Your task to perform on an android device: What's the weather today? Image 0: 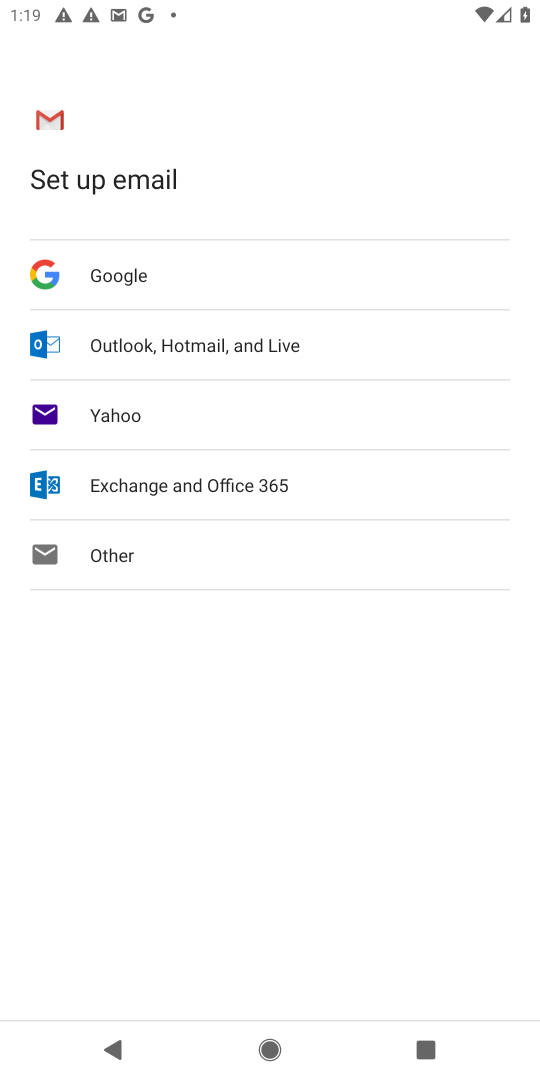
Step 0: press home button
Your task to perform on an android device: What's the weather today? Image 1: 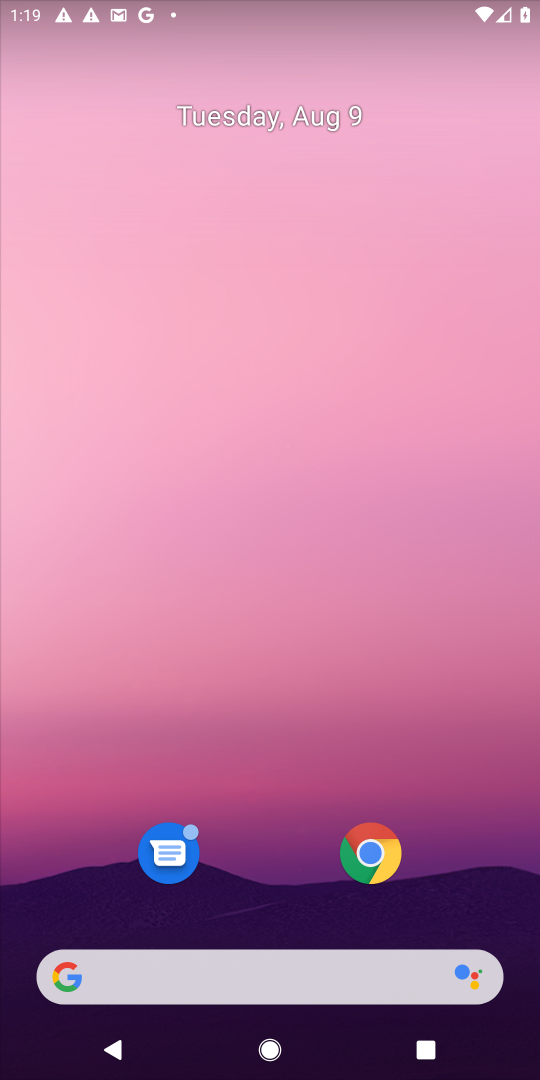
Step 1: drag from (268, 922) to (205, 51)
Your task to perform on an android device: What's the weather today? Image 2: 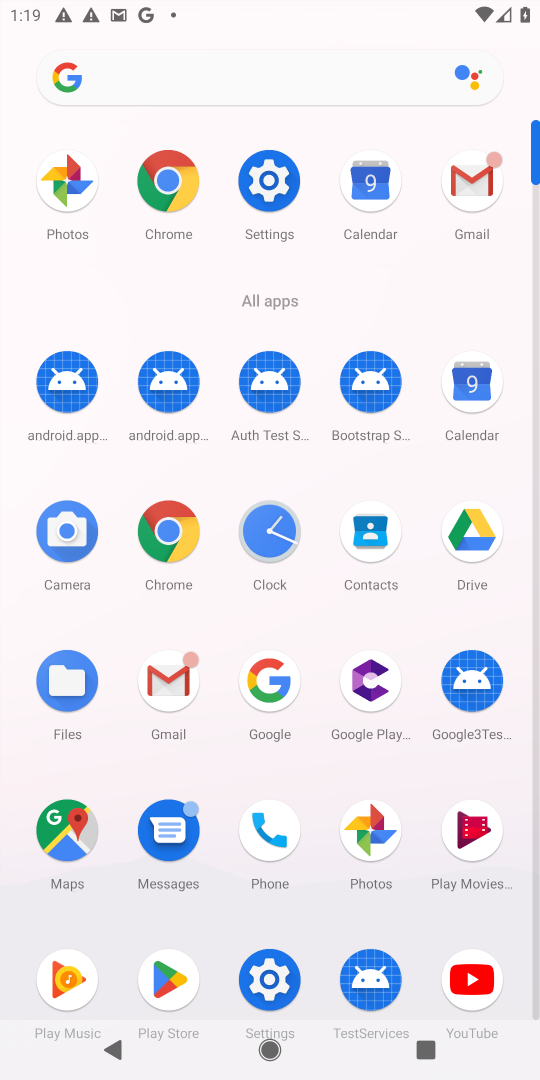
Step 2: press home button
Your task to perform on an android device: What's the weather today? Image 3: 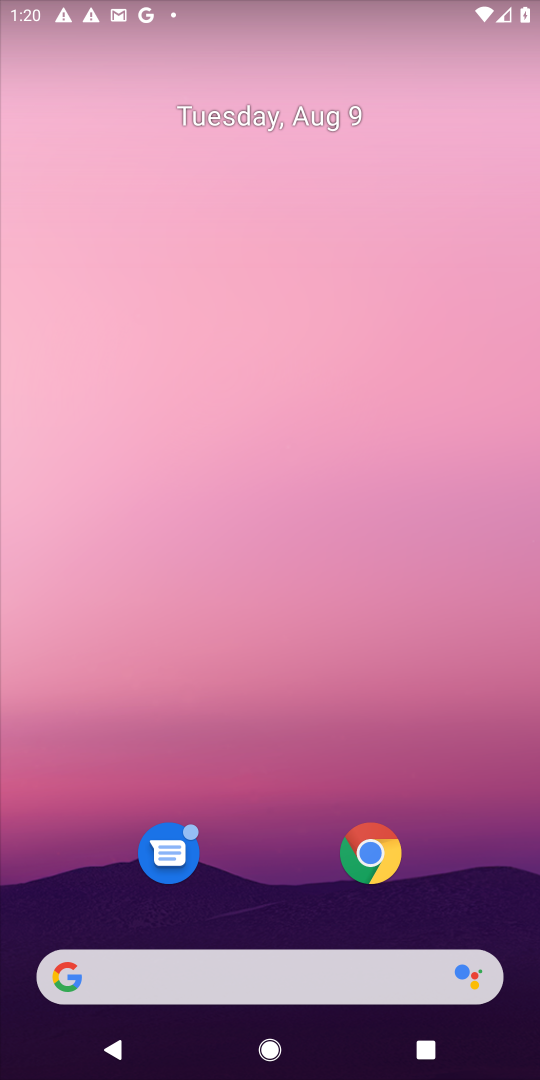
Step 3: drag from (38, 598) to (538, 602)
Your task to perform on an android device: What's the weather today? Image 4: 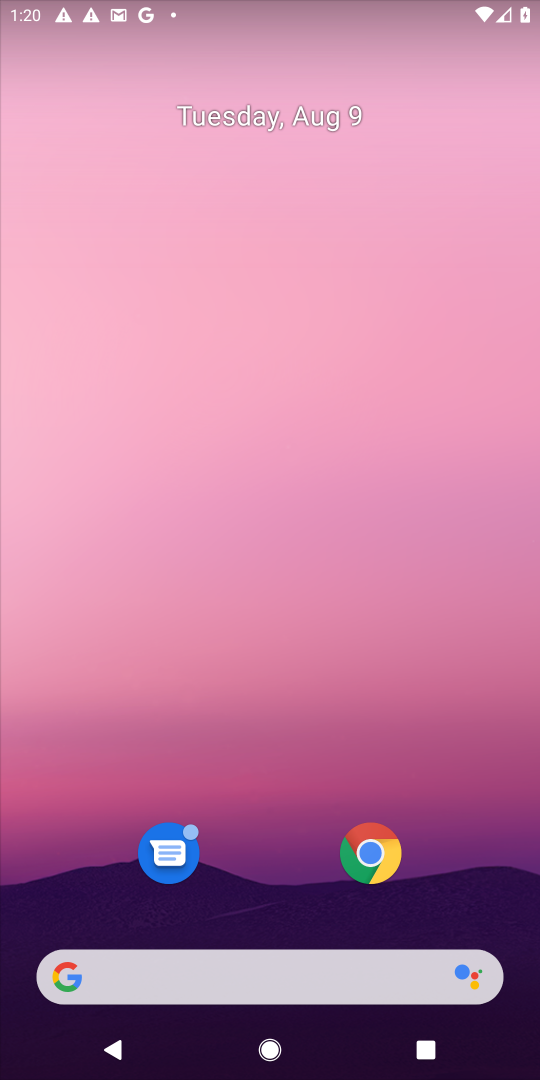
Step 4: drag from (300, 880) to (201, 38)
Your task to perform on an android device: What's the weather today? Image 5: 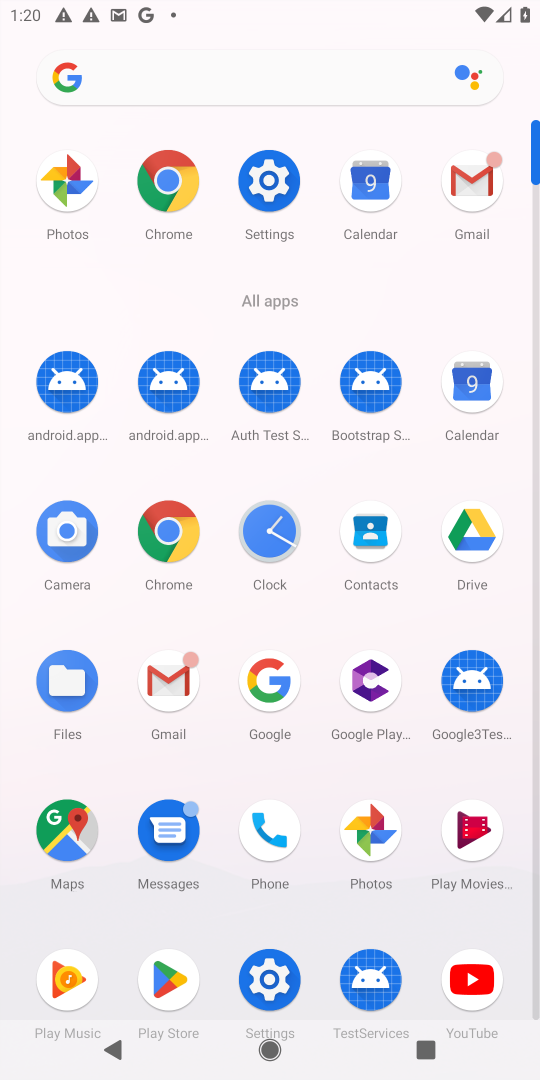
Step 5: click (133, 74)
Your task to perform on an android device: What's the weather today? Image 6: 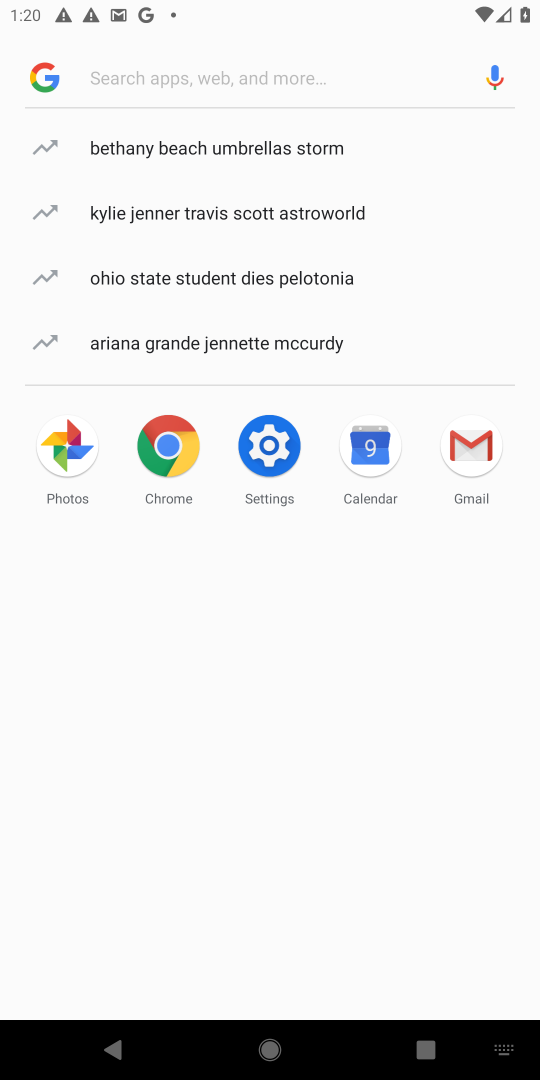
Step 6: type "weather"
Your task to perform on an android device: What's the weather today? Image 7: 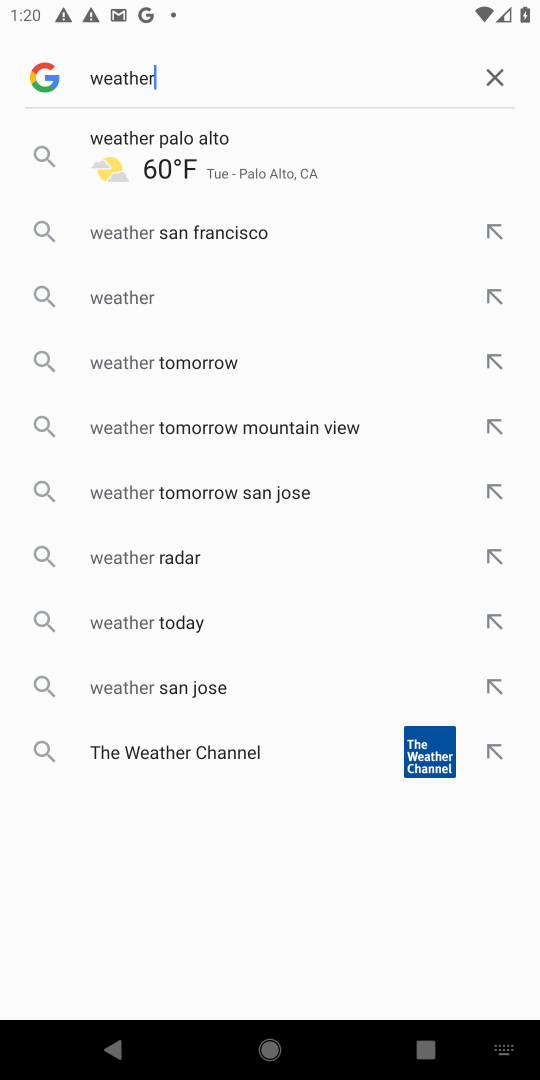
Step 7: click (118, 155)
Your task to perform on an android device: What's the weather today? Image 8: 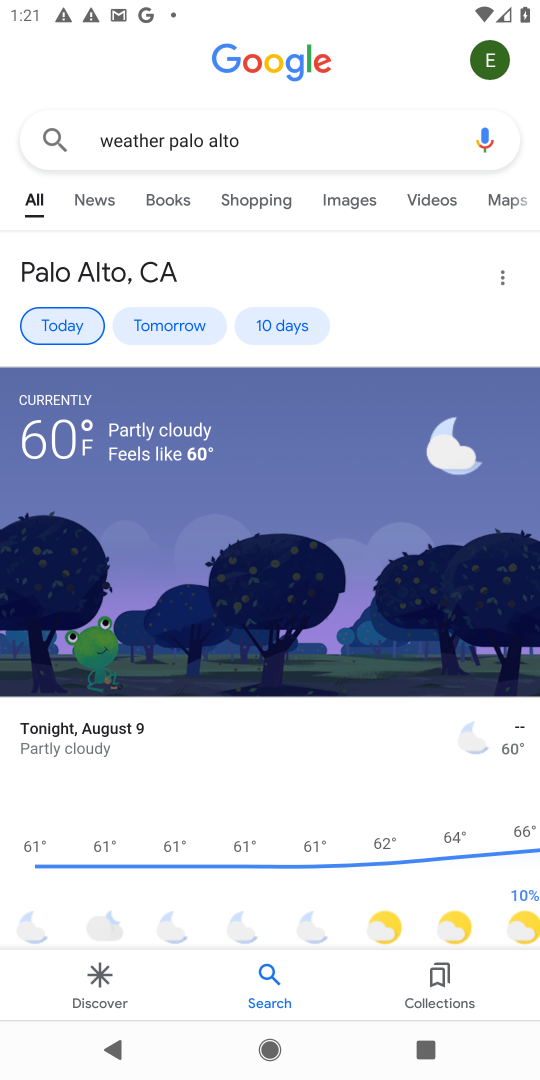
Step 8: task complete